Your task to perform on an android device: Open battery settings Image 0: 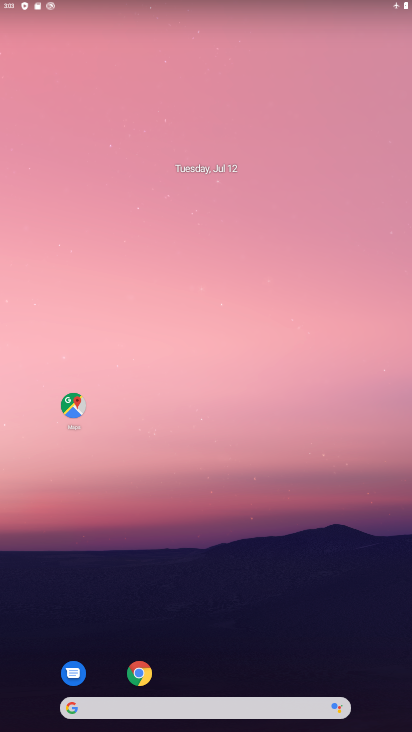
Step 0: drag from (183, 703) to (223, 121)
Your task to perform on an android device: Open battery settings Image 1: 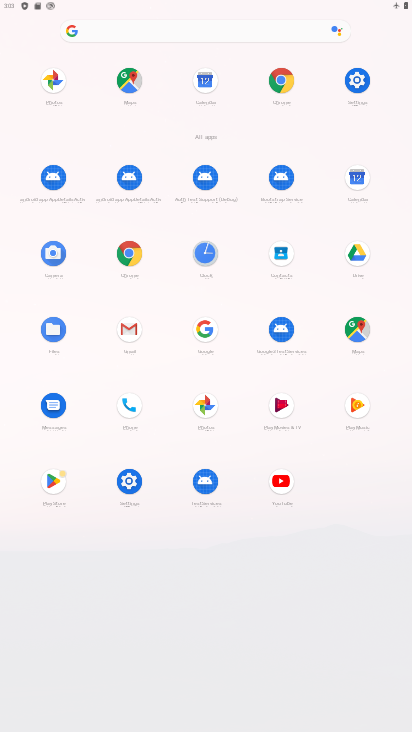
Step 1: click (358, 80)
Your task to perform on an android device: Open battery settings Image 2: 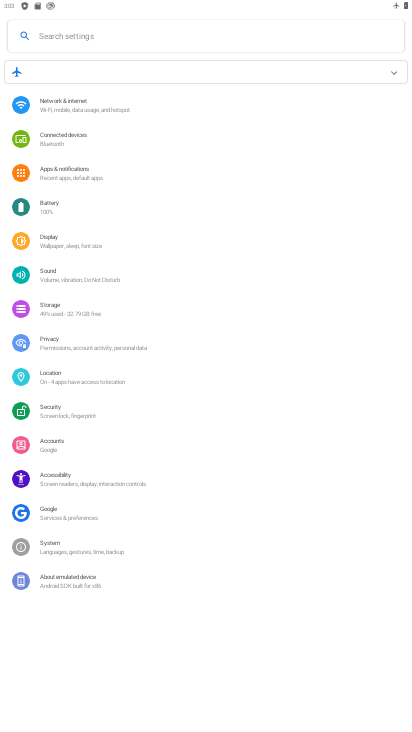
Step 2: click (47, 212)
Your task to perform on an android device: Open battery settings Image 3: 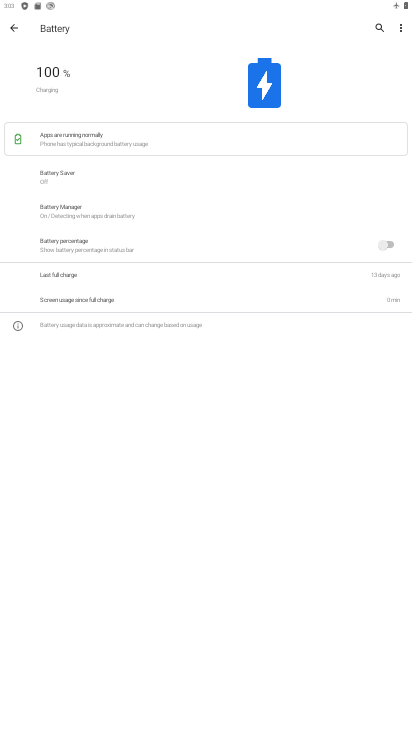
Step 3: task complete